Your task to perform on an android device: Add panasonic triple a to the cart on target Image 0: 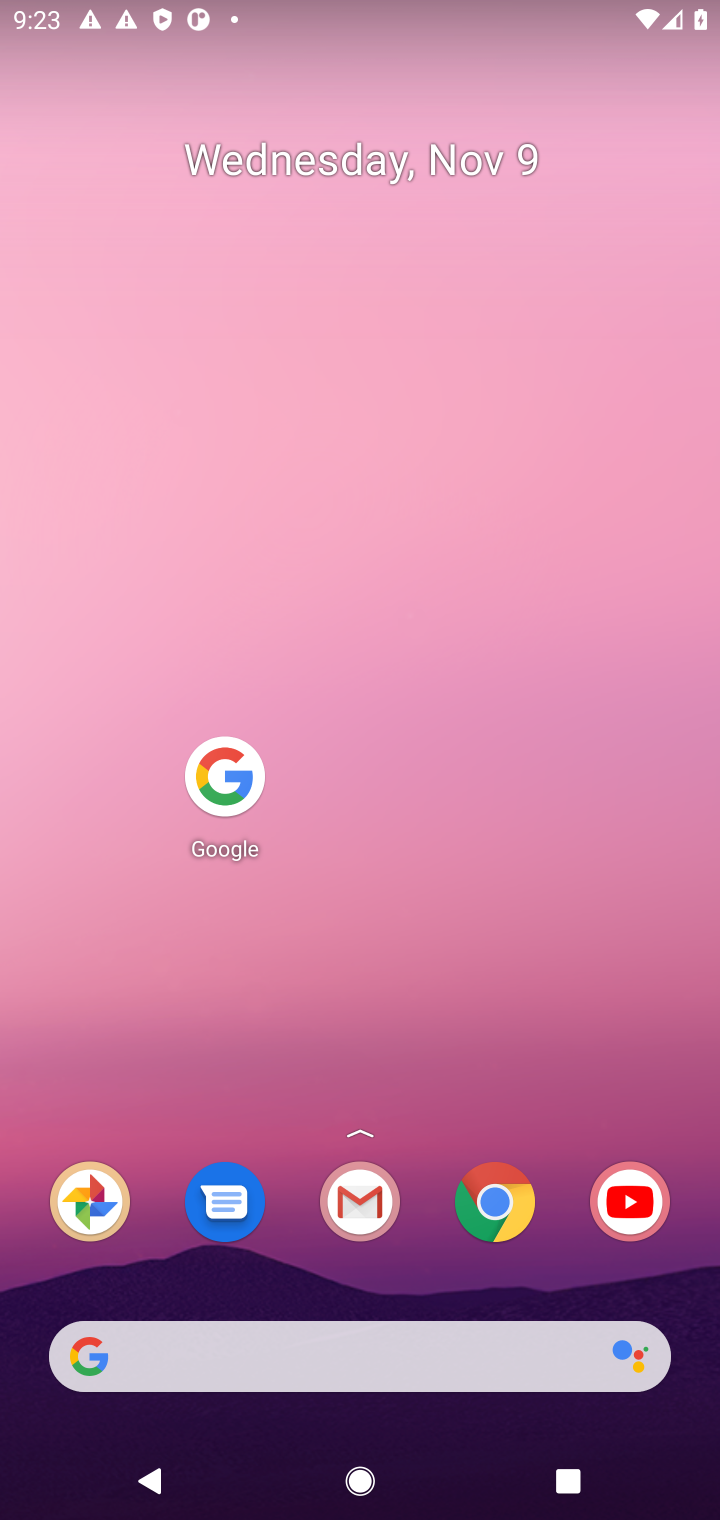
Step 0: click (227, 780)
Your task to perform on an android device: Add panasonic triple a to the cart on target Image 1: 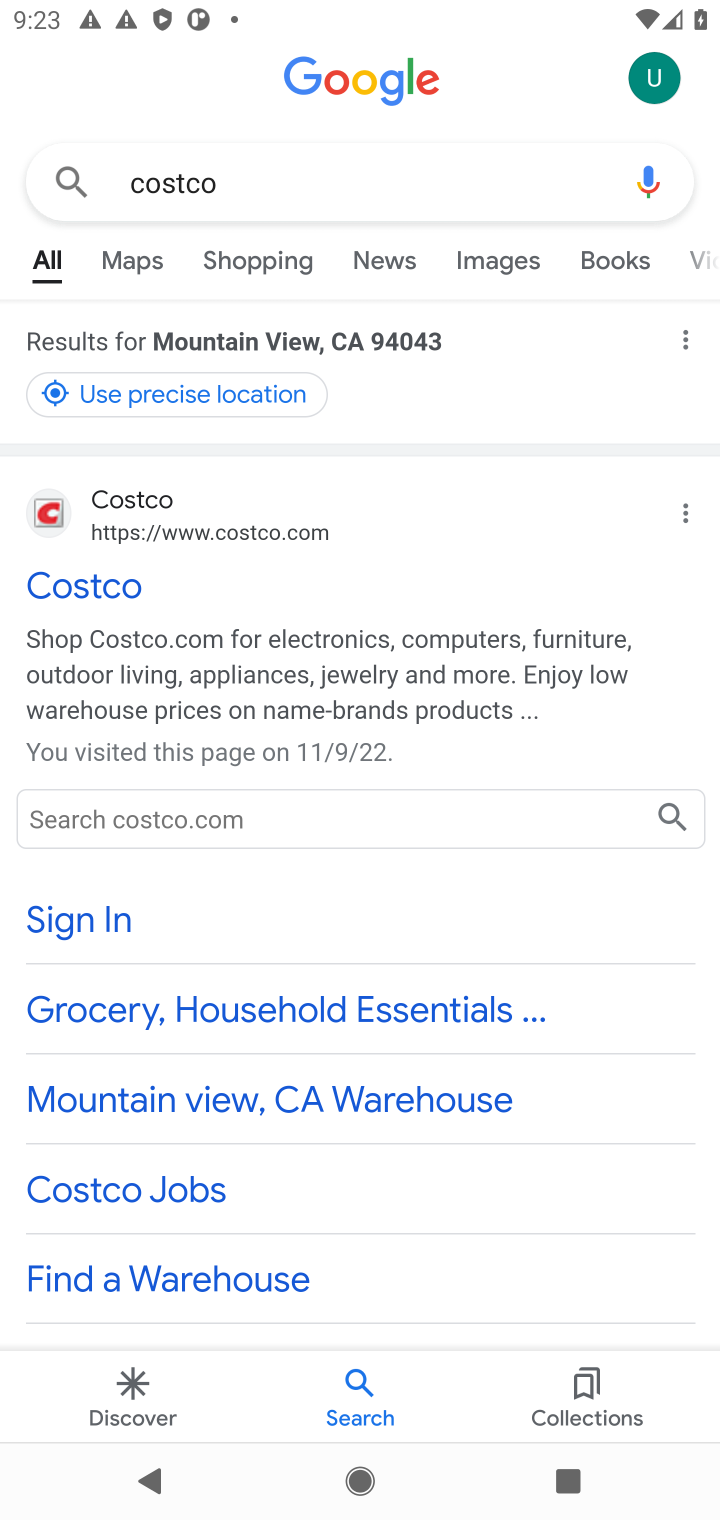
Step 1: click (265, 184)
Your task to perform on an android device: Add panasonic triple a to the cart on target Image 2: 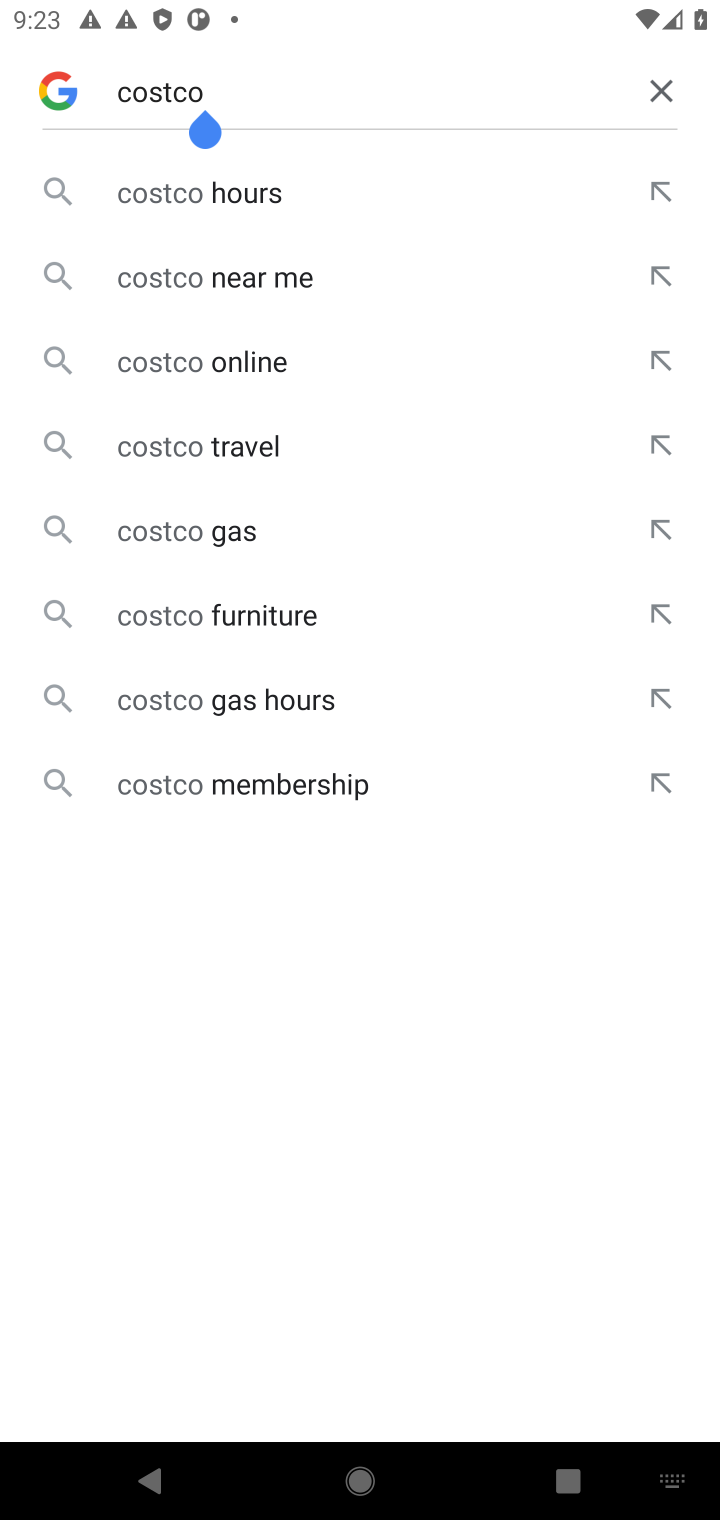
Step 2: click (664, 84)
Your task to perform on an android device: Add panasonic triple a to the cart on target Image 3: 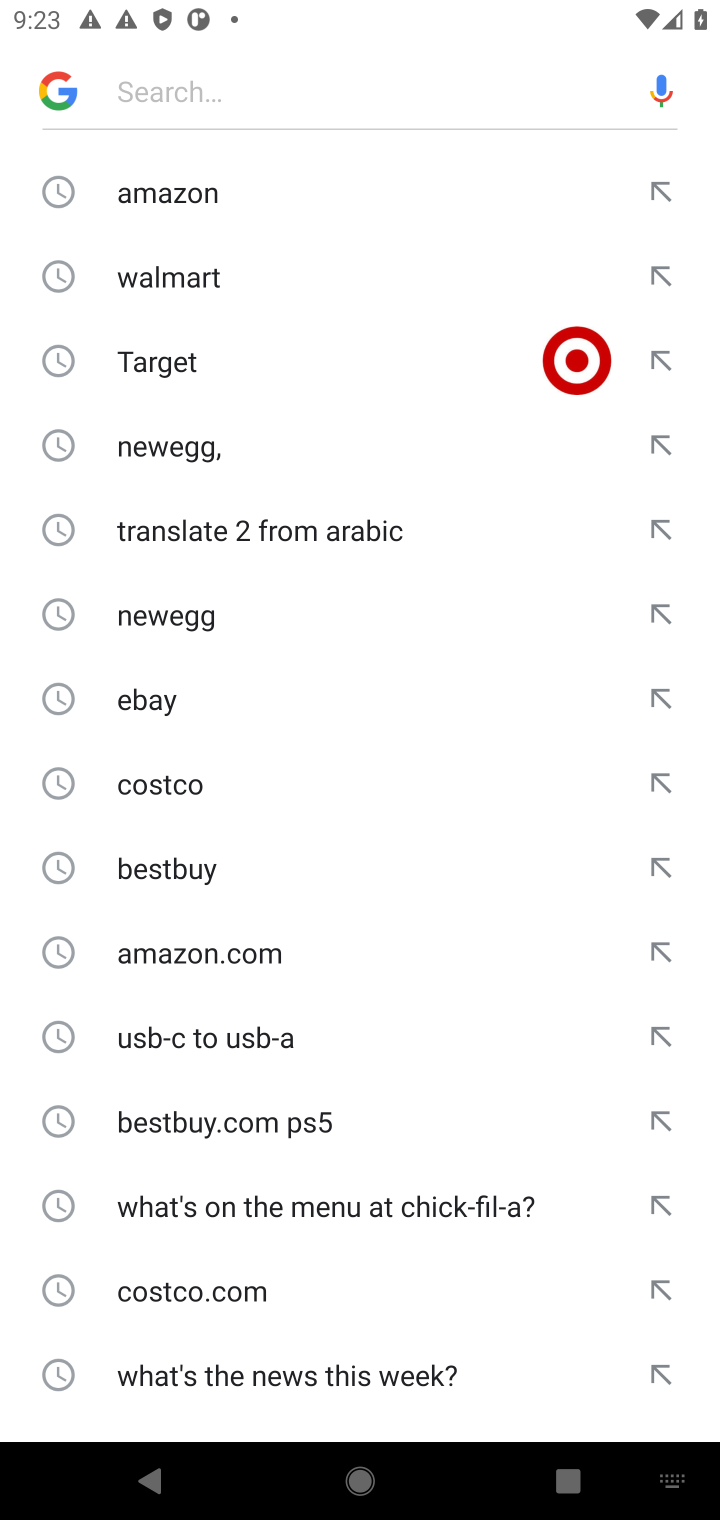
Step 3: click (138, 354)
Your task to perform on an android device: Add panasonic triple a to the cart on target Image 4: 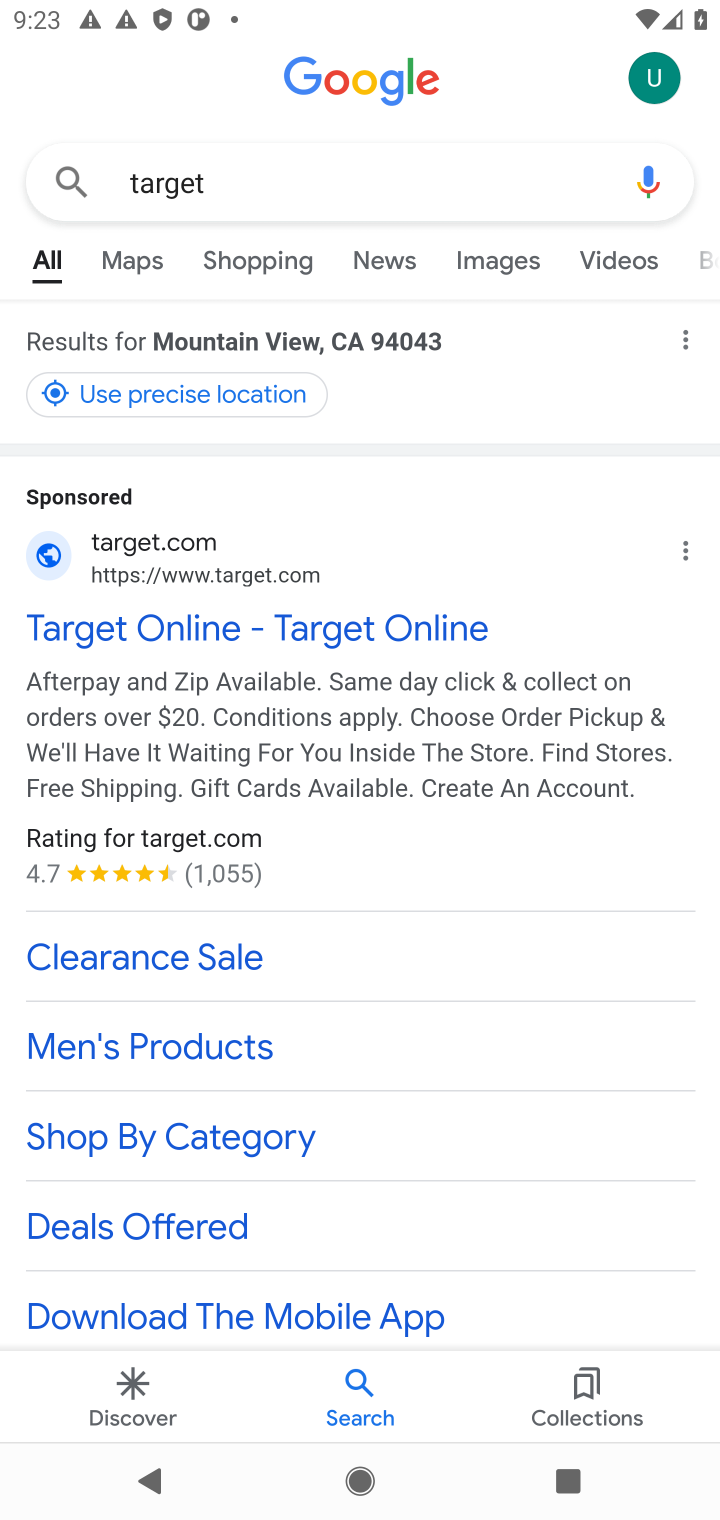
Step 4: click (152, 624)
Your task to perform on an android device: Add panasonic triple a to the cart on target Image 5: 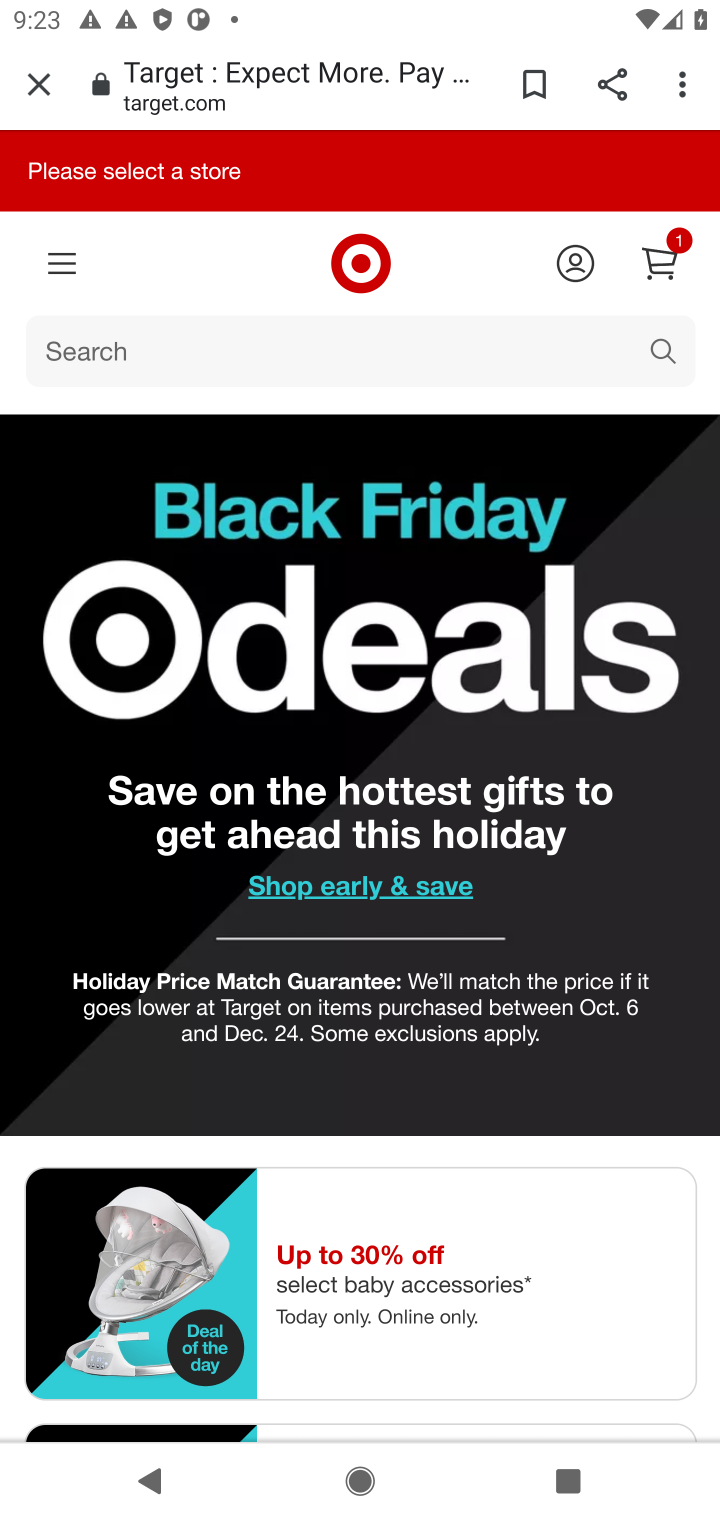
Step 5: click (167, 340)
Your task to perform on an android device: Add panasonic triple a to the cart on target Image 6: 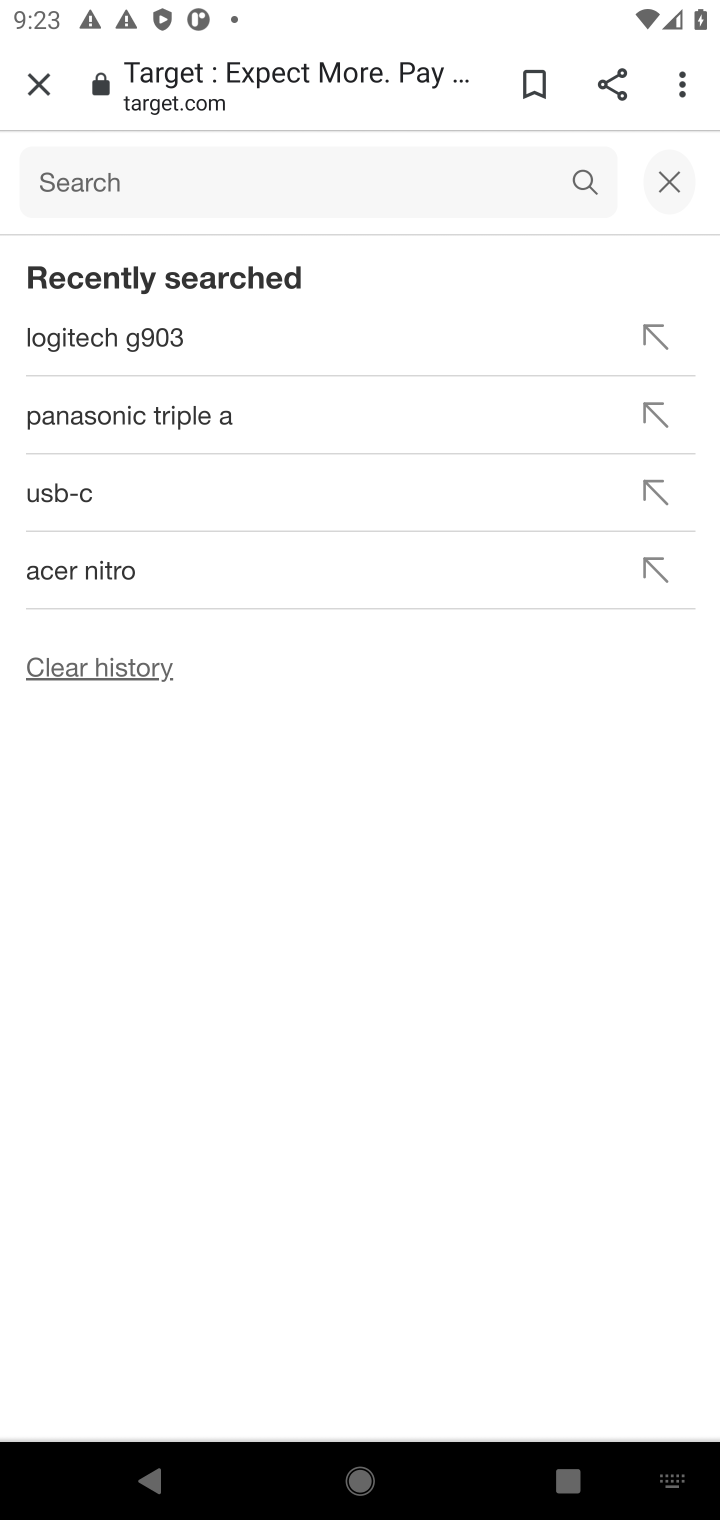
Step 6: type " panasonic triple a "
Your task to perform on an android device: Add panasonic triple a to the cart on target Image 7: 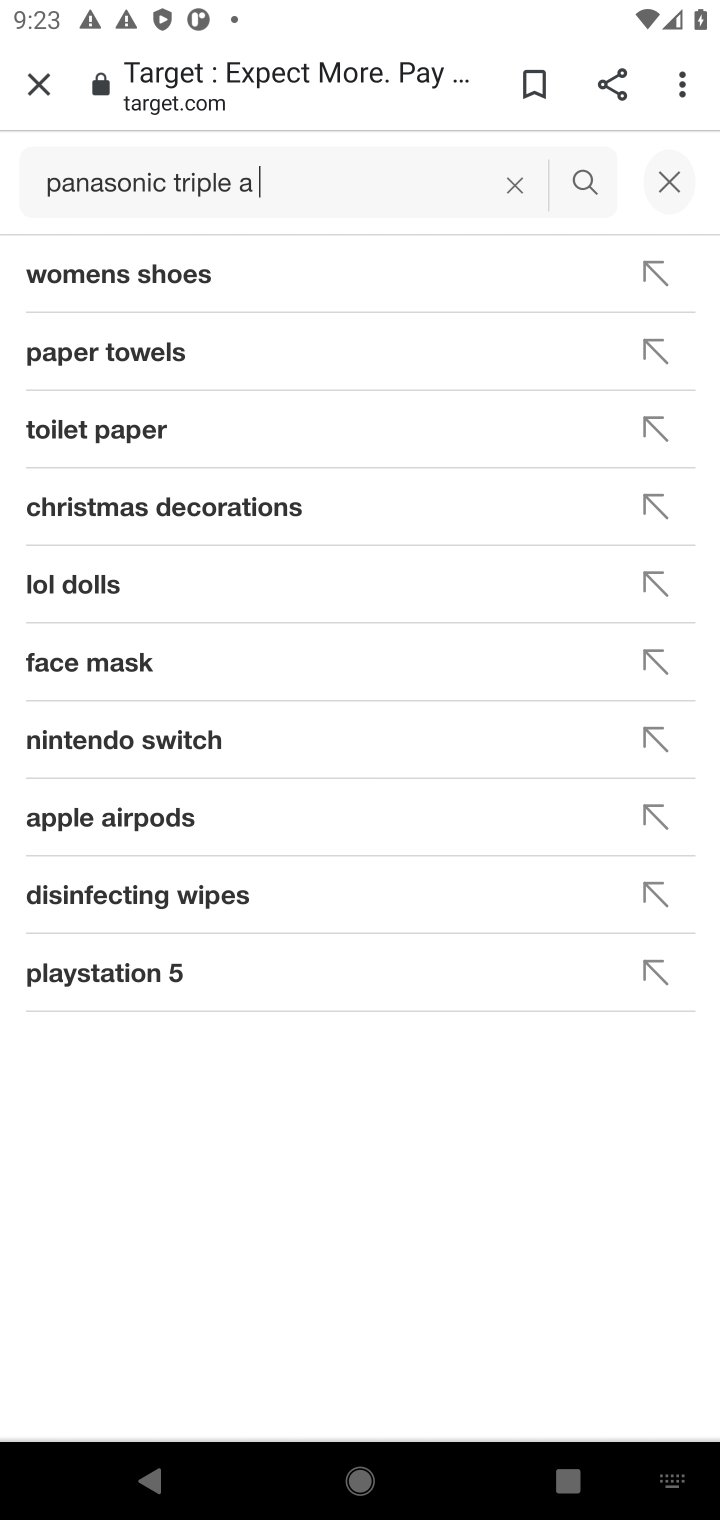
Step 7: press enter
Your task to perform on an android device: Add panasonic triple a to the cart on target Image 8: 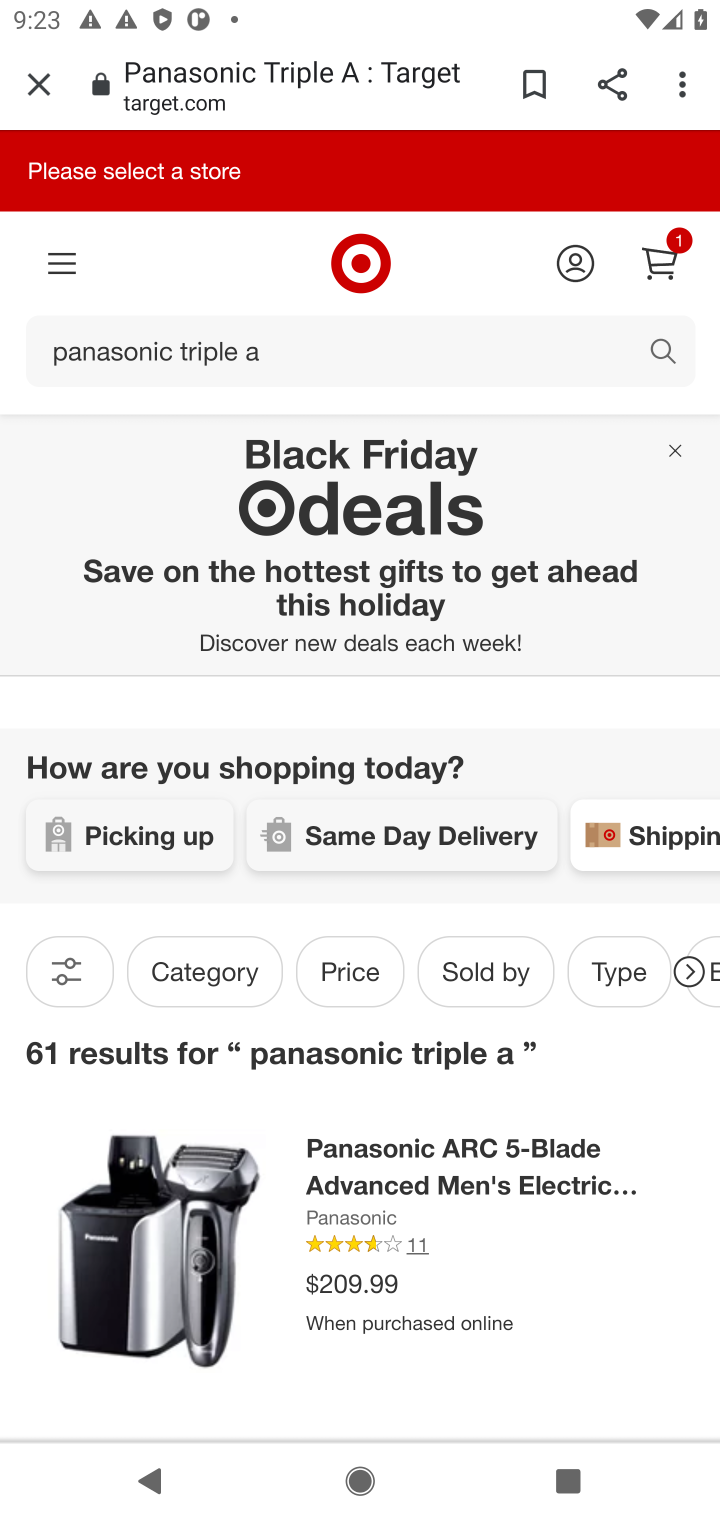
Step 8: task complete